Your task to perform on an android device: What is the news today? Image 0: 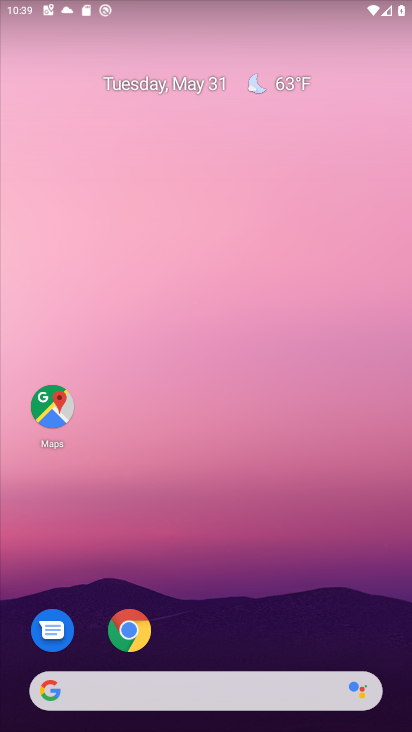
Step 0: drag from (265, 597) to (249, 144)
Your task to perform on an android device: What is the news today? Image 1: 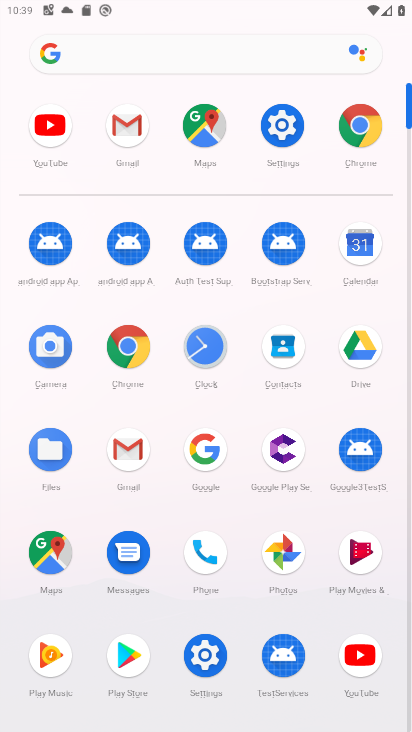
Step 1: click (133, 351)
Your task to perform on an android device: What is the news today? Image 2: 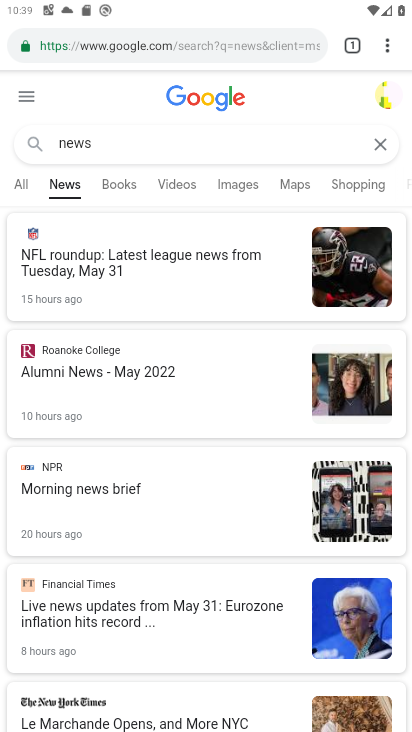
Step 2: task complete